Your task to perform on an android device: Search for sushi restaurants on Maps Image 0: 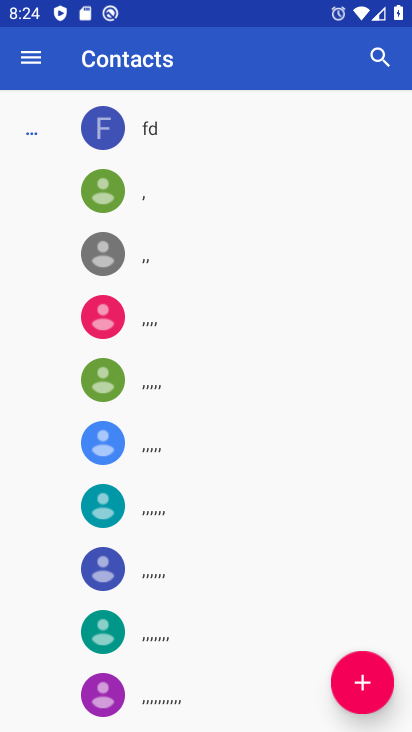
Step 0: press home button
Your task to perform on an android device: Search for sushi restaurants on Maps Image 1: 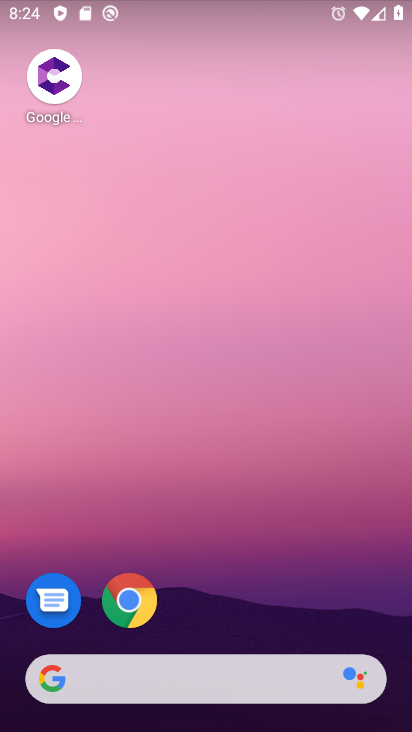
Step 1: drag from (202, 727) to (168, 166)
Your task to perform on an android device: Search for sushi restaurants on Maps Image 2: 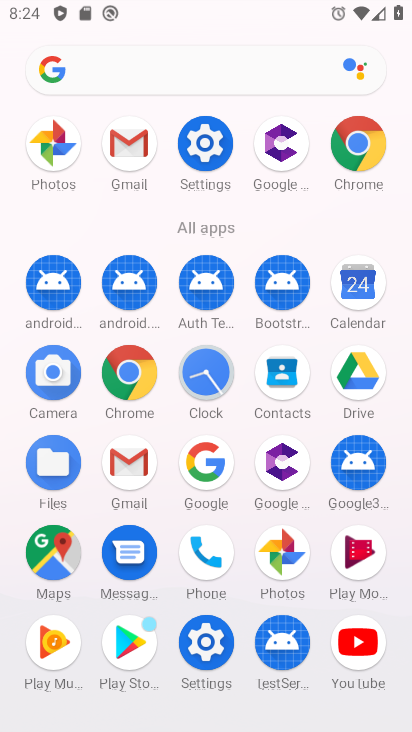
Step 2: click (51, 552)
Your task to perform on an android device: Search for sushi restaurants on Maps Image 3: 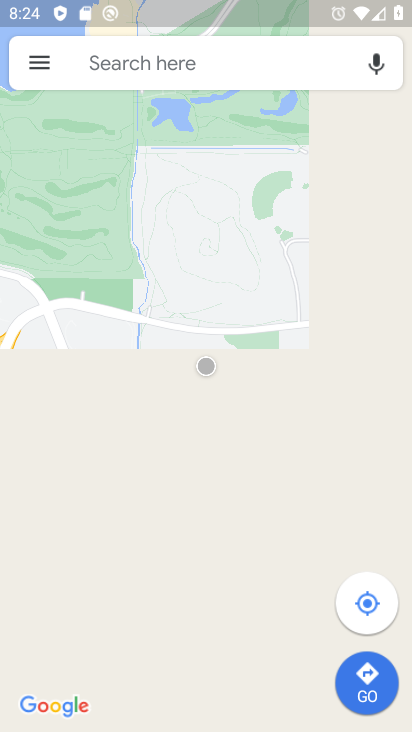
Step 3: click (189, 68)
Your task to perform on an android device: Search for sushi restaurants on Maps Image 4: 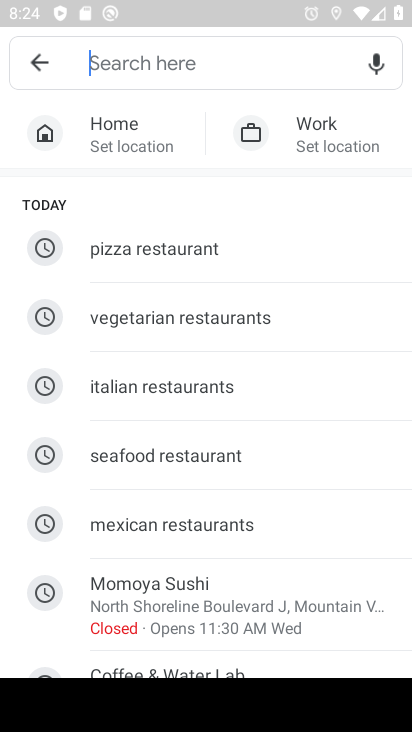
Step 4: type "sushi restaurants"
Your task to perform on an android device: Search for sushi restaurants on Maps Image 5: 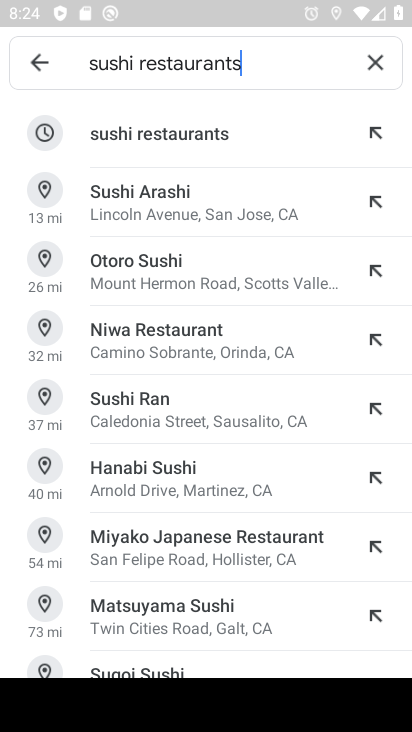
Step 5: click (113, 135)
Your task to perform on an android device: Search for sushi restaurants on Maps Image 6: 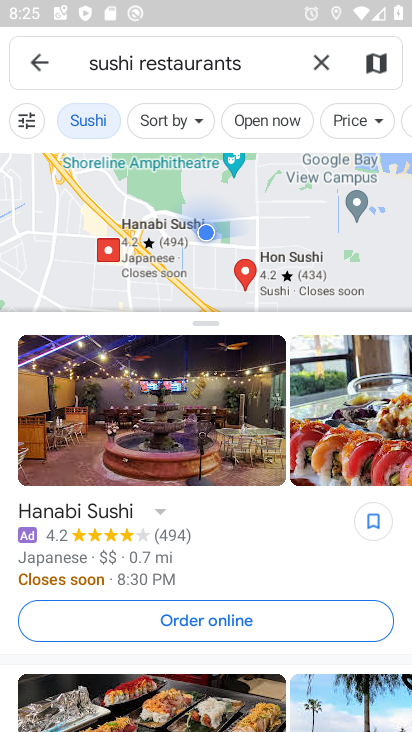
Step 6: task complete